Your task to perform on an android device: toggle show notifications on the lock screen Image 0: 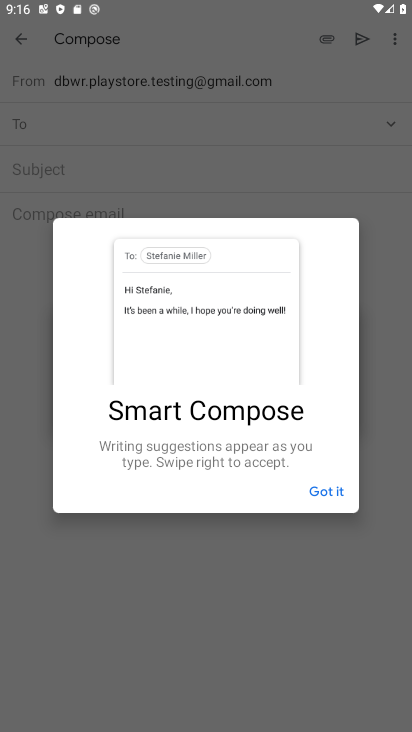
Step 0: press home button
Your task to perform on an android device: toggle show notifications on the lock screen Image 1: 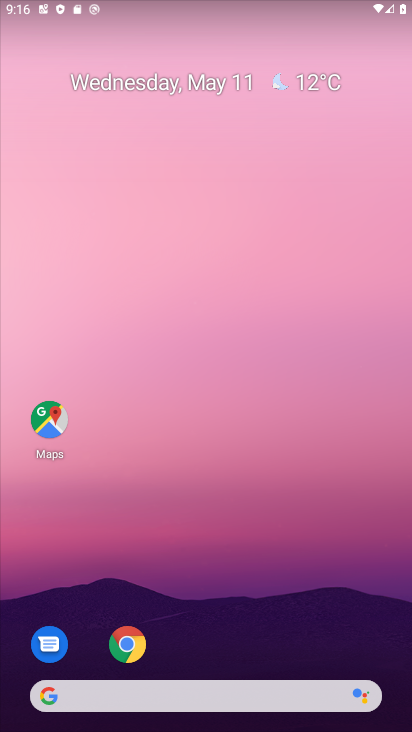
Step 1: drag from (196, 634) to (114, 351)
Your task to perform on an android device: toggle show notifications on the lock screen Image 2: 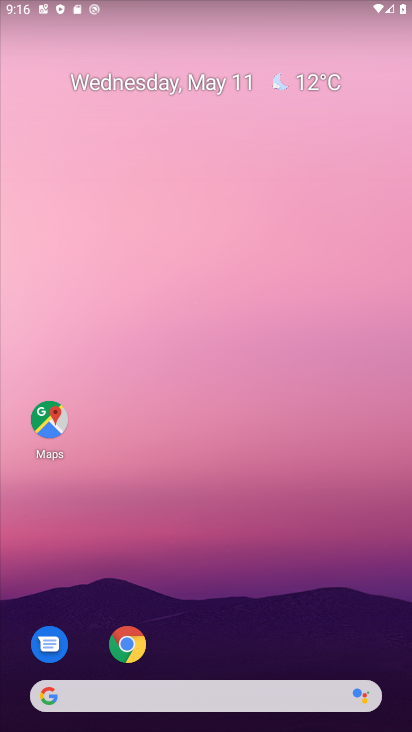
Step 2: drag from (194, 640) to (99, 23)
Your task to perform on an android device: toggle show notifications on the lock screen Image 3: 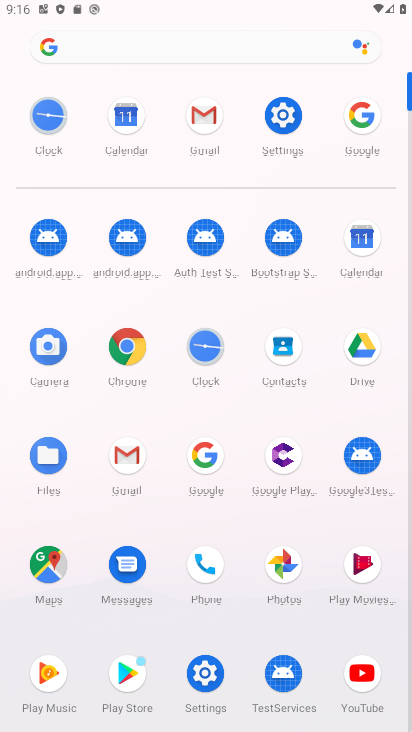
Step 3: click (285, 117)
Your task to perform on an android device: toggle show notifications on the lock screen Image 4: 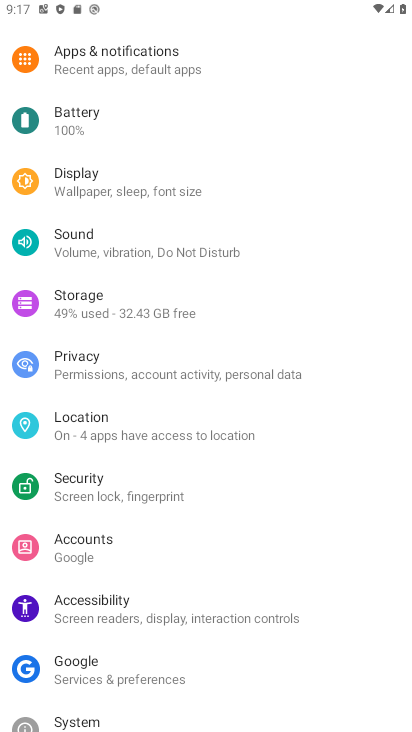
Step 4: click (171, 64)
Your task to perform on an android device: toggle show notifications on the lock screen Image 5: 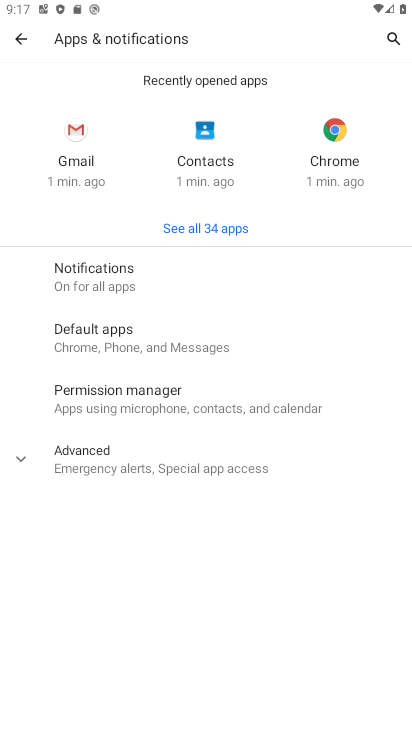
Step 5: click (81, 270)
Your task to perform on an android device: toggle show notifications on the lock screen Image 6: 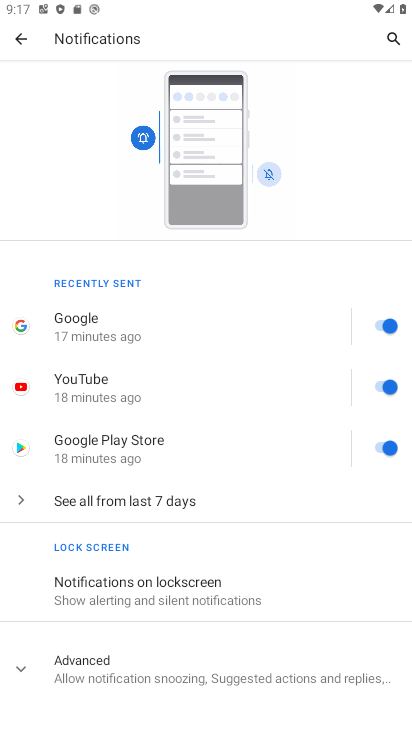
Step 6: click (90, 586)
Your task to perform on an android device: toggle show notifications on the lock screen Image 7: 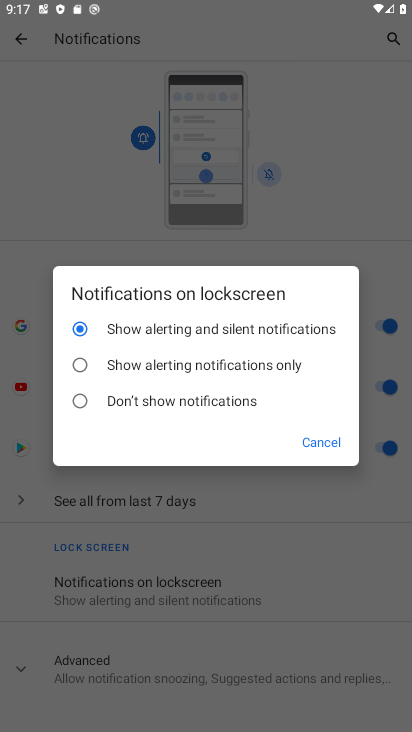
Step 7: click (136, 375)
Your task to perform on an android device: toggle show notifications on the lock screen Image 8: 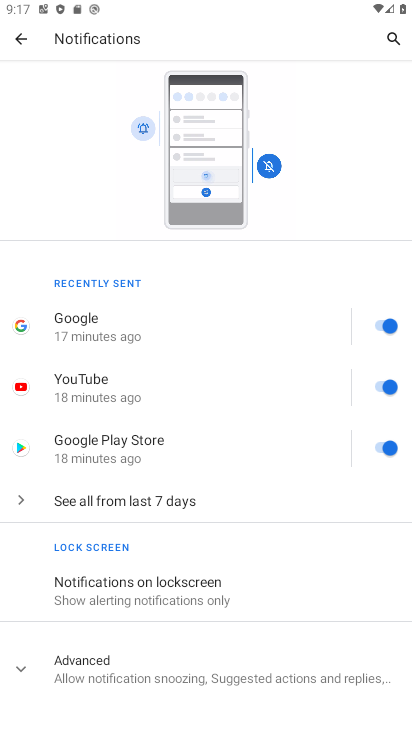
Step 8: task complete